Your task to perform on an android device: find which apps use the phone's location Image 0: 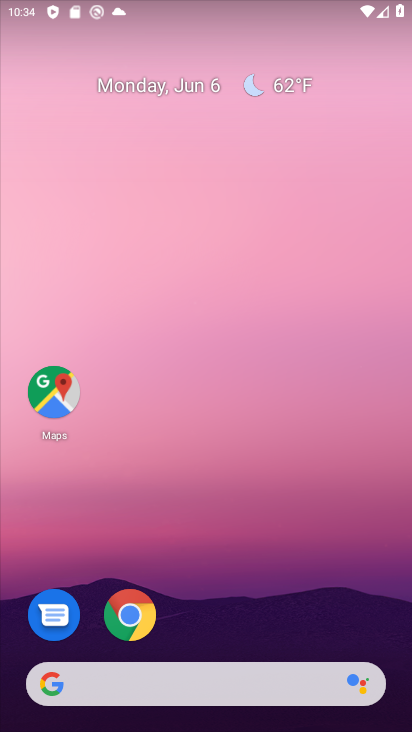
Step 0: drag from (232, 704) to (173, 284)
Your task to perform on an android device: find which apps use the phone's location Image 1: 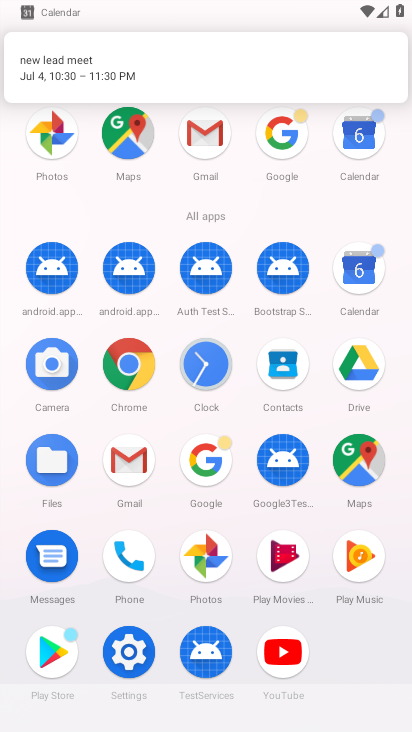
Step 1: click (119, 649)
Your task to perform on an android device: find which apps use the phone's location Image 2: 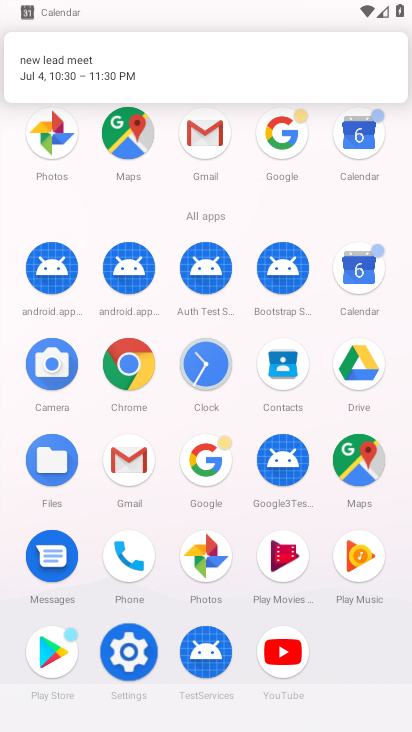
Step 2: click (124, 646)
Your task to perform on an android device: find which apps use the phone's location Image 3: 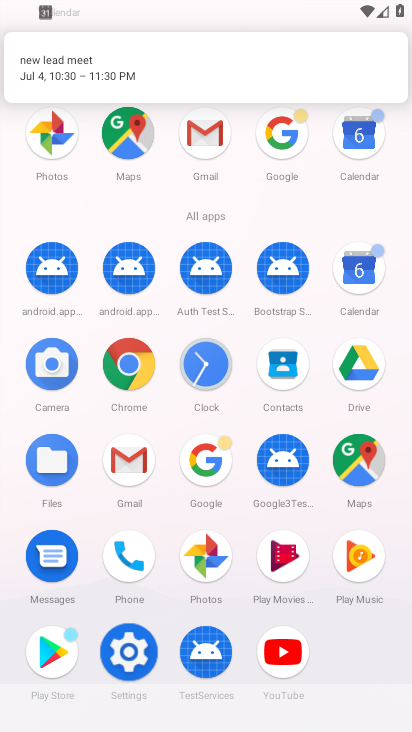
Step 3: click (126, 645)
Your task to perform on an android device: find which apps use the phone's location Image 4: 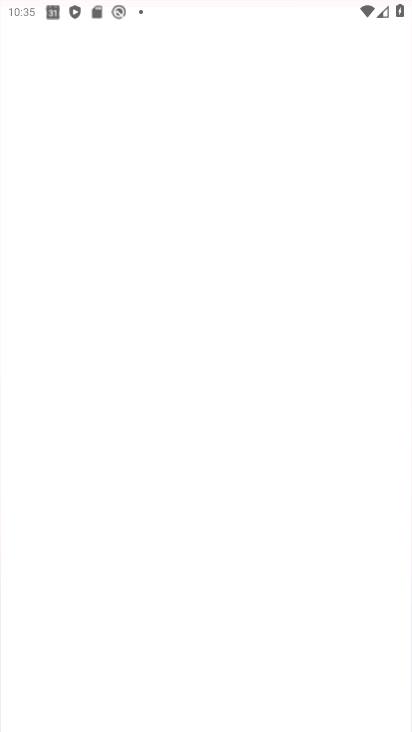
Step 4: click (131, 642)
Your task to perform on an android device: find which apps use the phone's location Image 5: 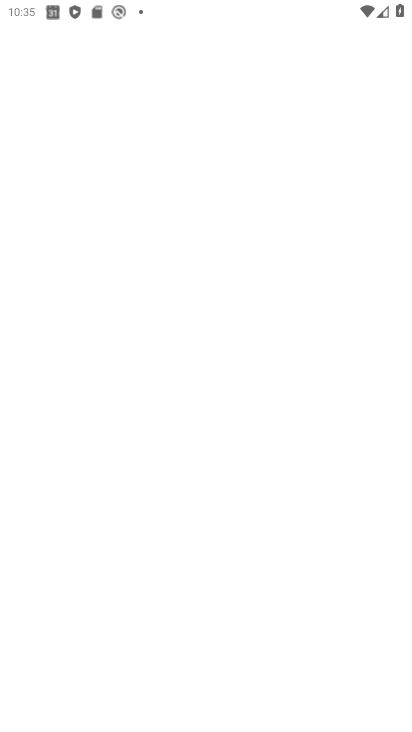
Step 5: click (133, 640)
Your task to perform on an android device: find which apps use the phone's location Image 6: 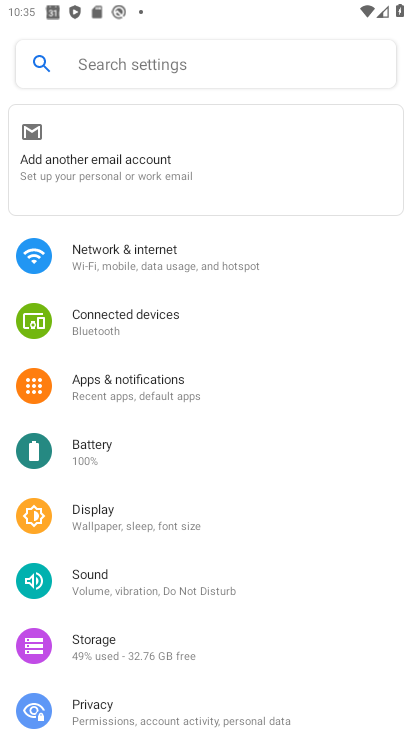
Step 6: drag from (157, 540) to (155, 181)
Your task to perform on an android device: find which apps use the phone's location Image 7: 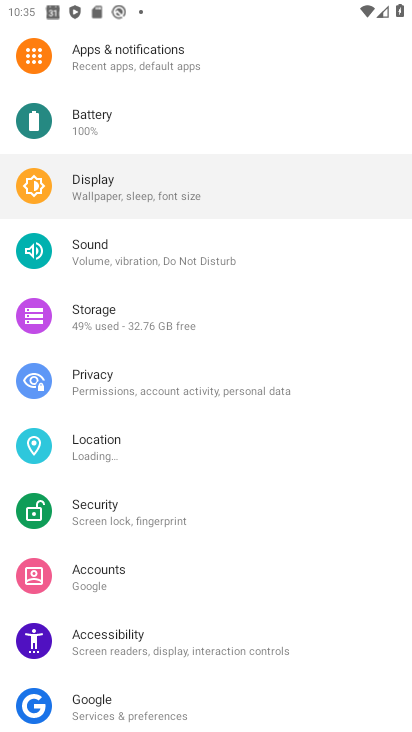
Step 7: drag from (190, 531) to (190, 205)
Your task to perform on an android device: find which apps use the phone's location Image 8: 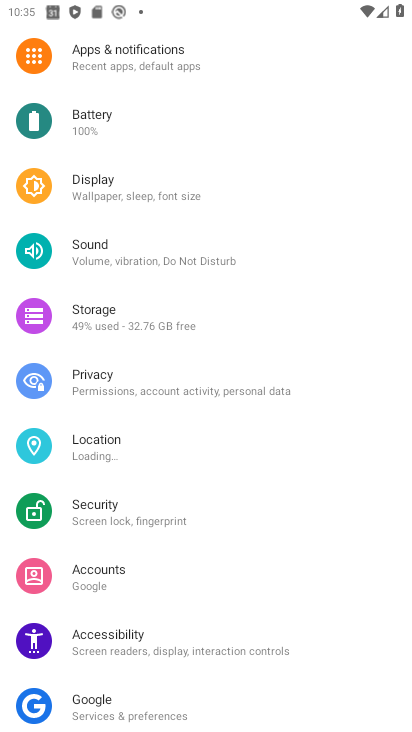
Step 8: drag from (159, 594) to (137, 213)
Your task to perform on an android device: find which apps use the phone's location Image 9: 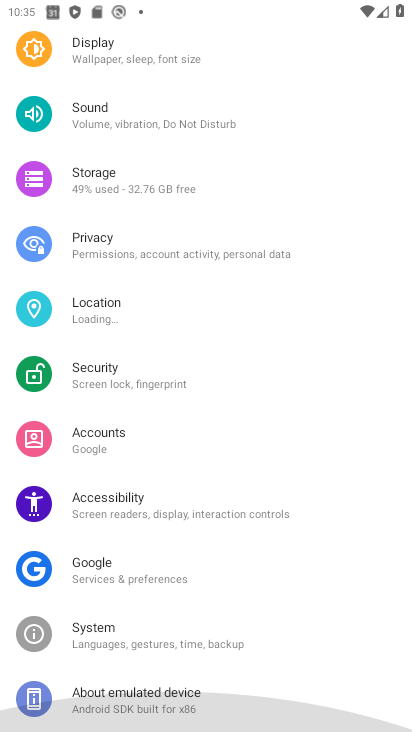
Step 9: drag from (126, 440) to (107, 157)
Your task to perform on an android device: find which apps use the phone's location Image 10: 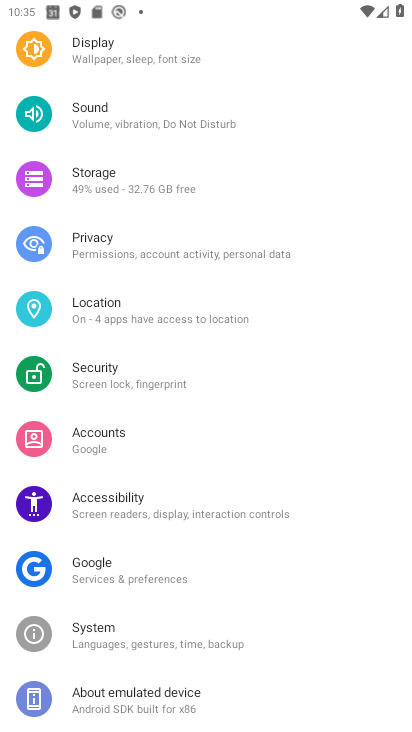
Step 10: click (94, 304)
Your task to perform on an android device: find which apps use the phone's location Image 11: 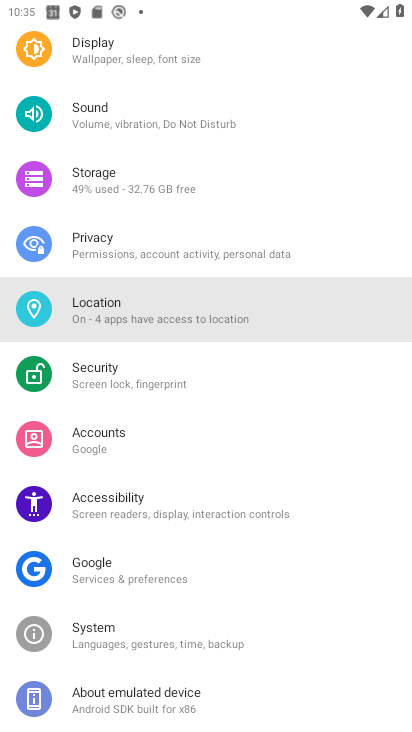
Step 11: click (105, 297)
Your task to perform on an android device: find which apps use the phone's location Image 12: 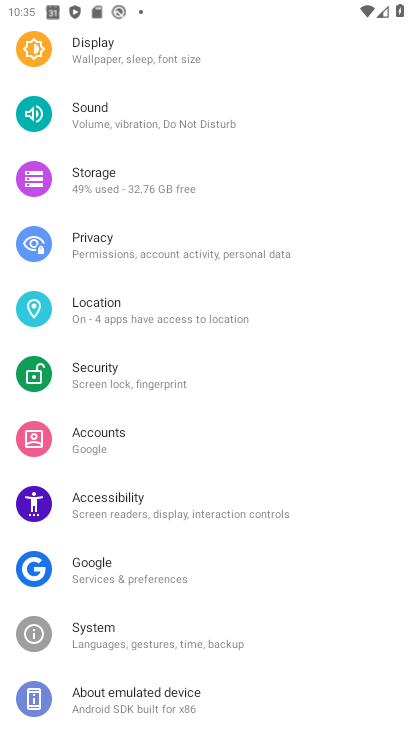
Step 12: click (105, 297)
Your task to perform on an android device: find which apps use the phone's location Image 13: 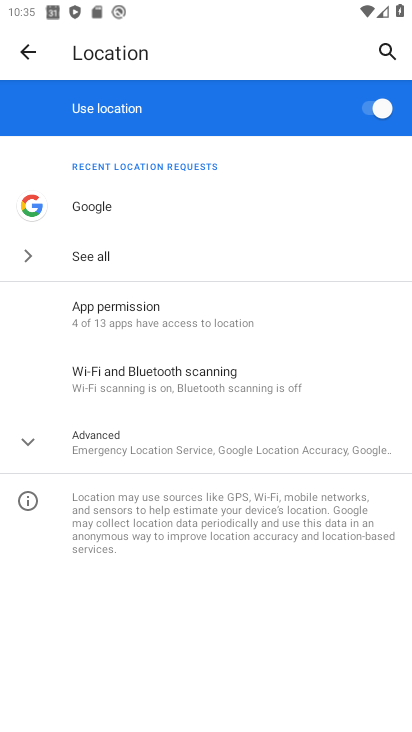
Step 13: click (173, 447)
Your task to perform on an android device: find which apps use the phone's location Image 14: 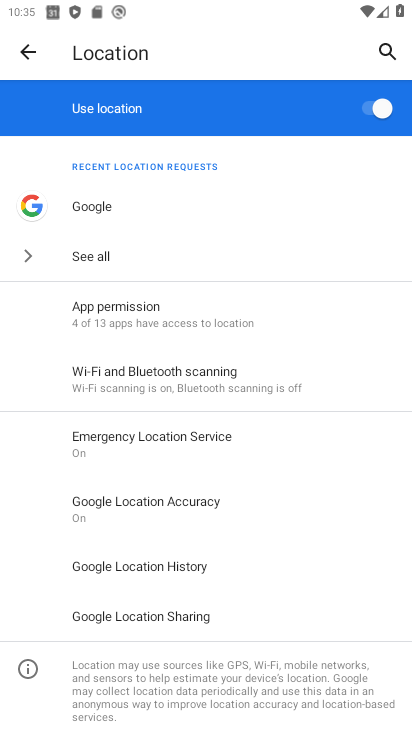
Step 14: click (119, 312)
Your task to perform on an android device: find which apps use the phone's location Image 15: 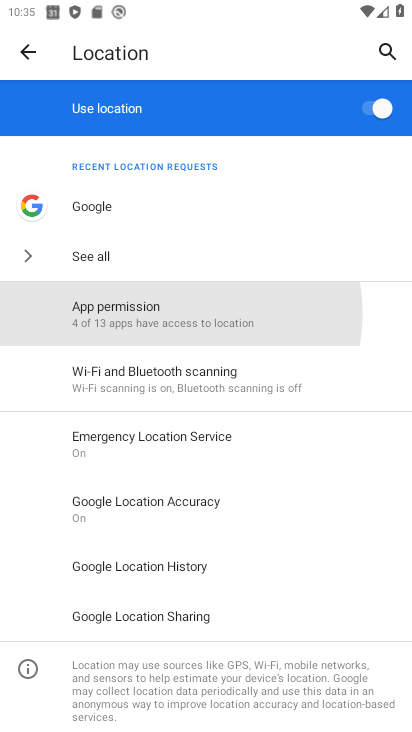
Step 15: click (119, 312)
Your task to perform on an android device: find which apps use the phone's location Image 16: 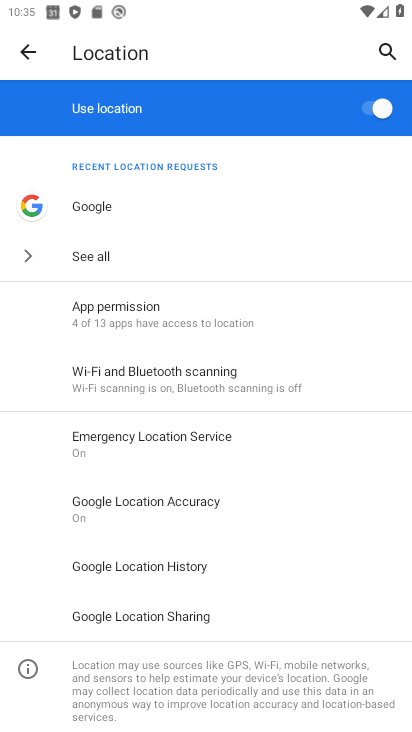
Step 16: click (119, 312)
Your task to perform on an android device: find which apps use the phone's location Image 17: 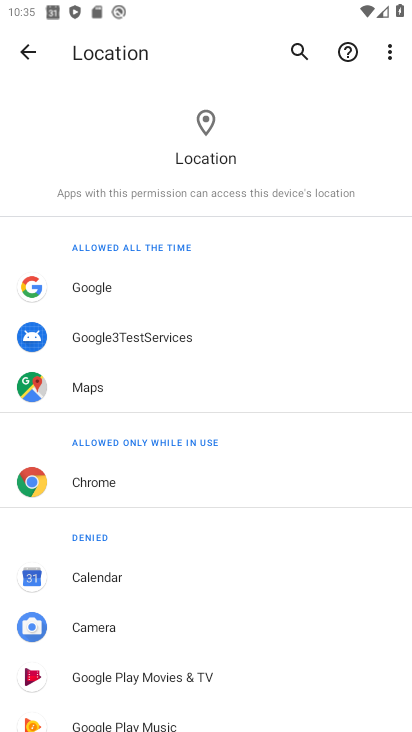
Step 17: task complete